Your task to perform on an android device: Show me recent news Image 0: 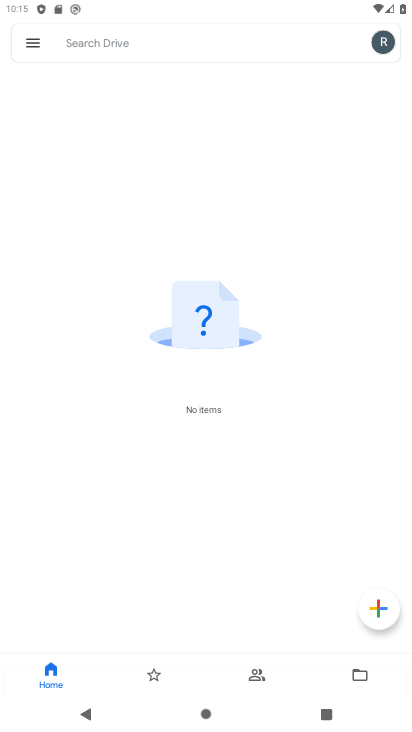
Step 0: press home button
Your task to perform on an android device: Show me recent news Image 1: 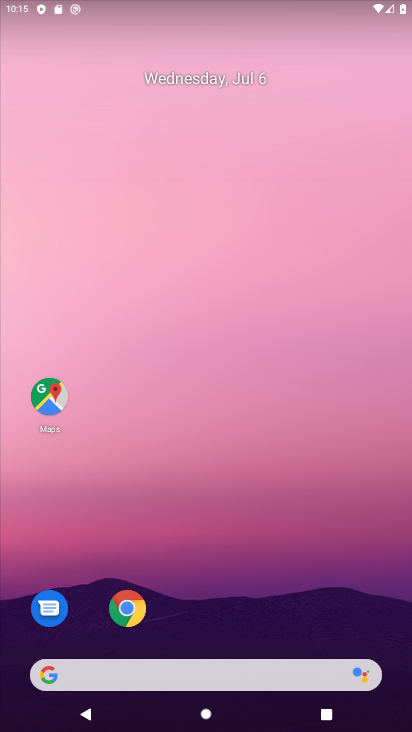
Step 1: task complete